Your task to perform on an android device: Go to ESPN.com Image 0: 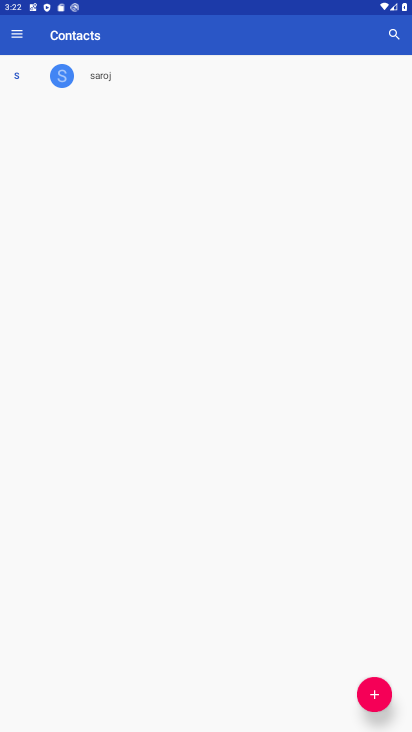
Step 0: press home button
Your task to perform on an android device: Go to ESPN.com Image 1: 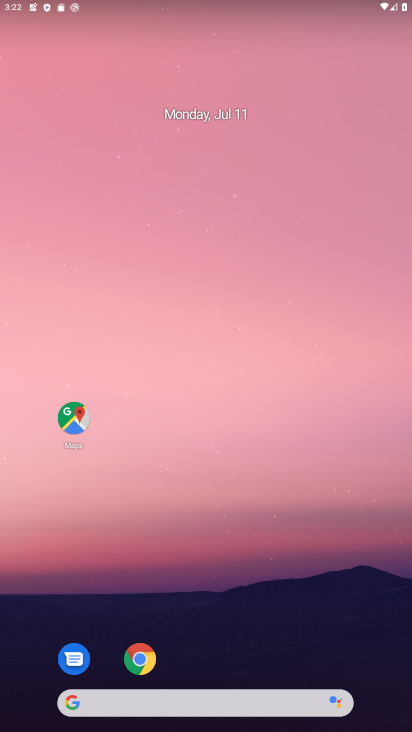
Step 1: click (149, 659)
Your task to perform on an android device: Go to ESPN.com Image 2: 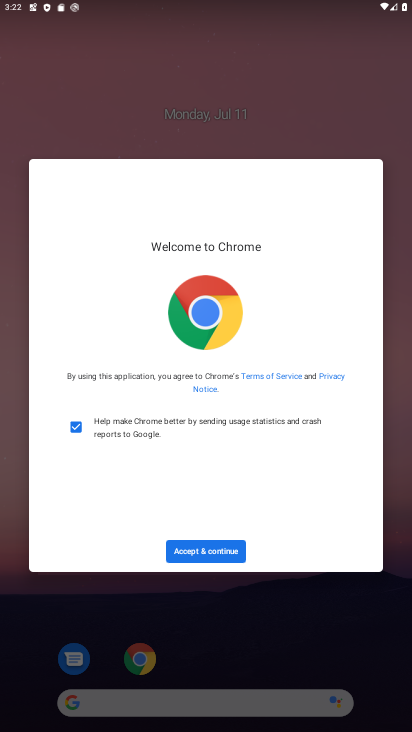
Step 2: click (193, 547)
Your task to perform on an android device: Go to ESPN.com Image 3: 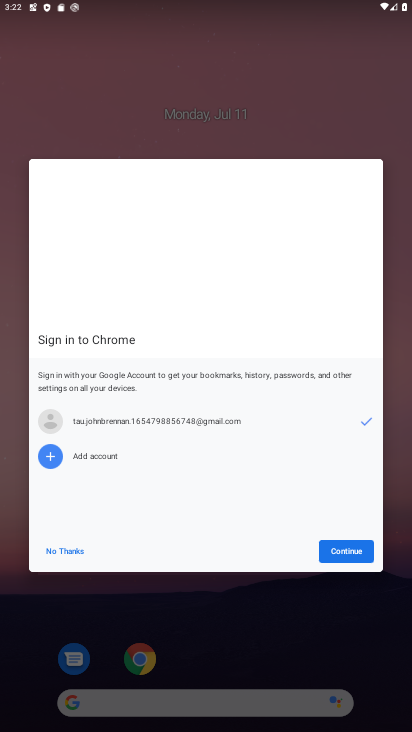
Step 3: click (366, 555)
Your task to perform on an android device: Go to ESPN.com Image 4: 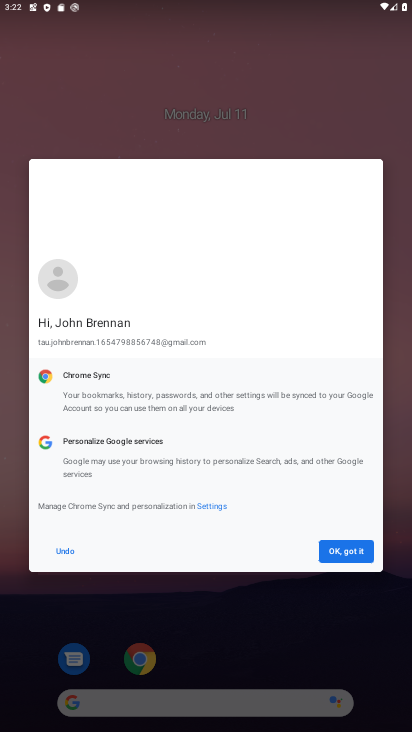
Step 4: click (366, 555)
Your task to perform on an android device: Go to ESPN.com Image 5: 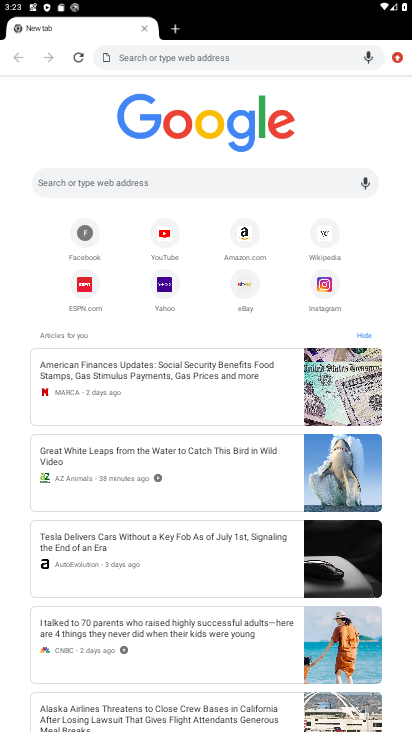
Step 5: click (90, 293)
Your task to perform on an android device: Go to ESPN.com Image 6: 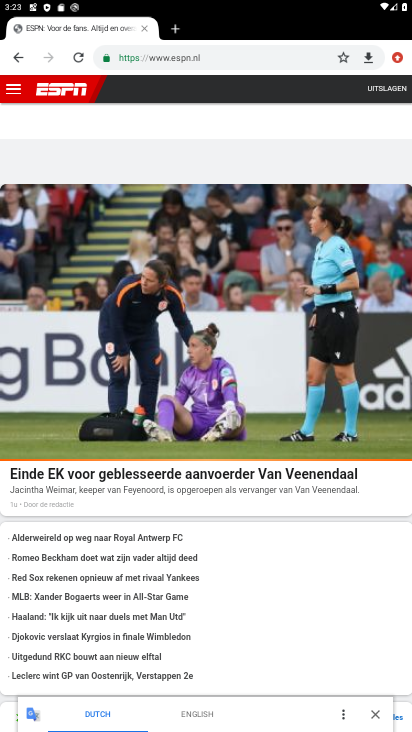
Step 6: task complete